Your task to perform on an android device: open app "Adobe Acrobat Reader" (install if not already installed) Image 0: 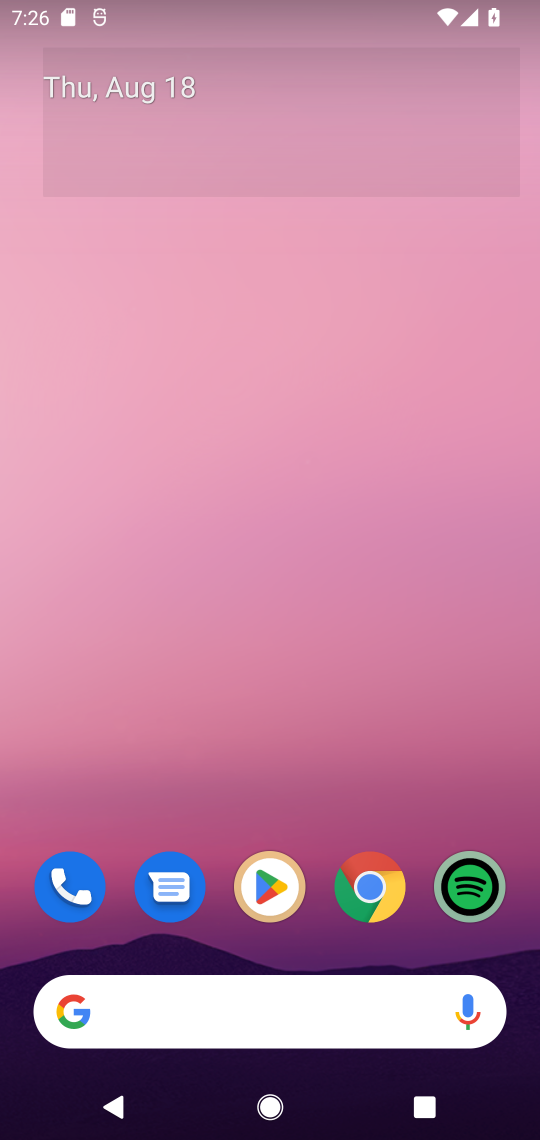
Step 0: click (274, 894)
Your task to perform on an android device: open app "Adobe Acrobat Reader" (install if not already installed) Image 1: 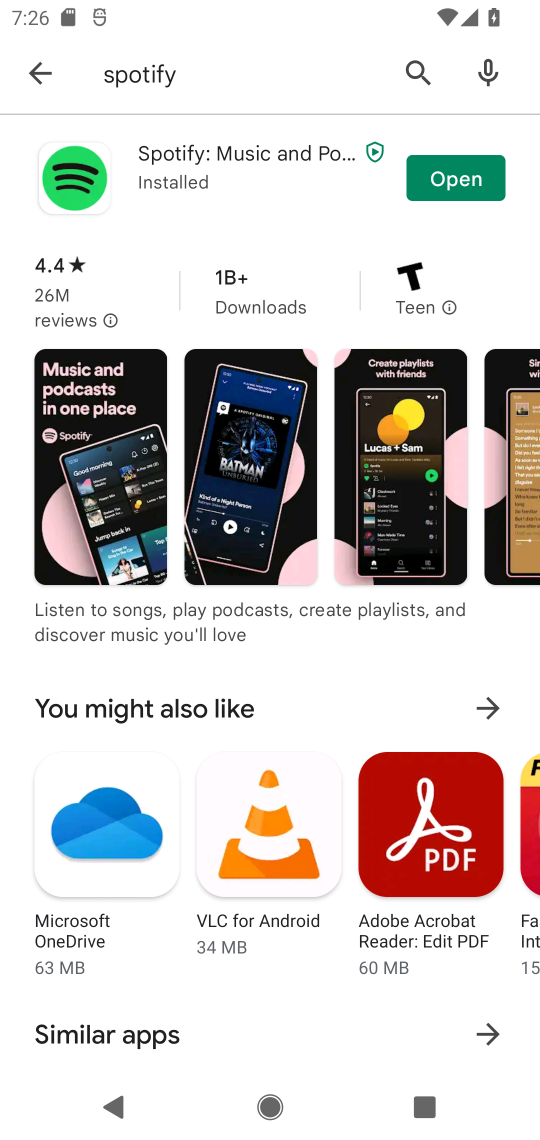
Step 1: click (417, 55)
Your task to perform on an android device: open app "Adobe Acrobat Reader" (install if not already installed) Image 2: 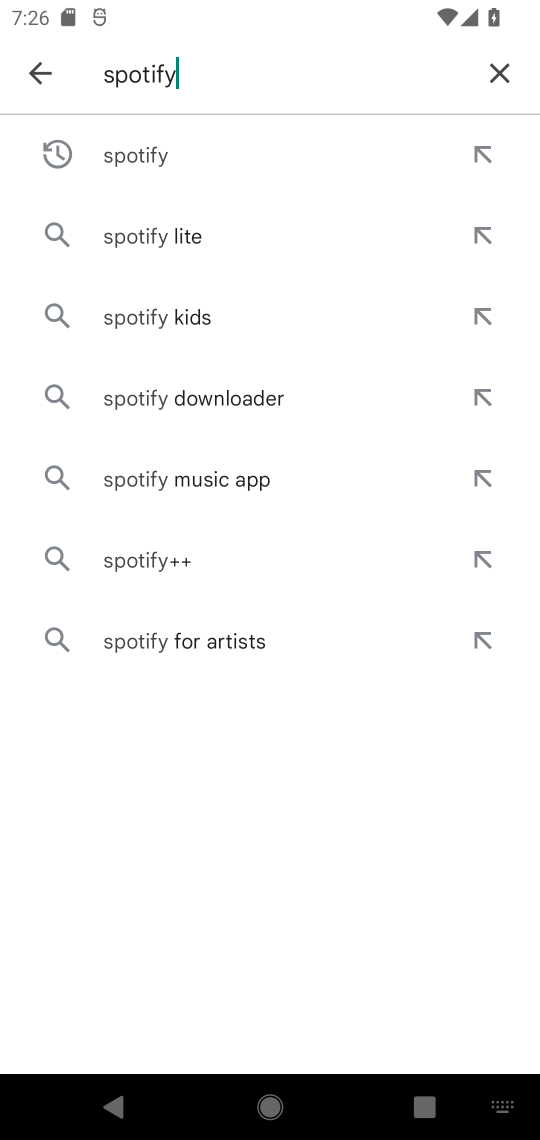
Step 2: click (499, 62)
Your task to perform on an android device: open app "Adobe Acrobat Reader" (install if not already installed) Image 3: 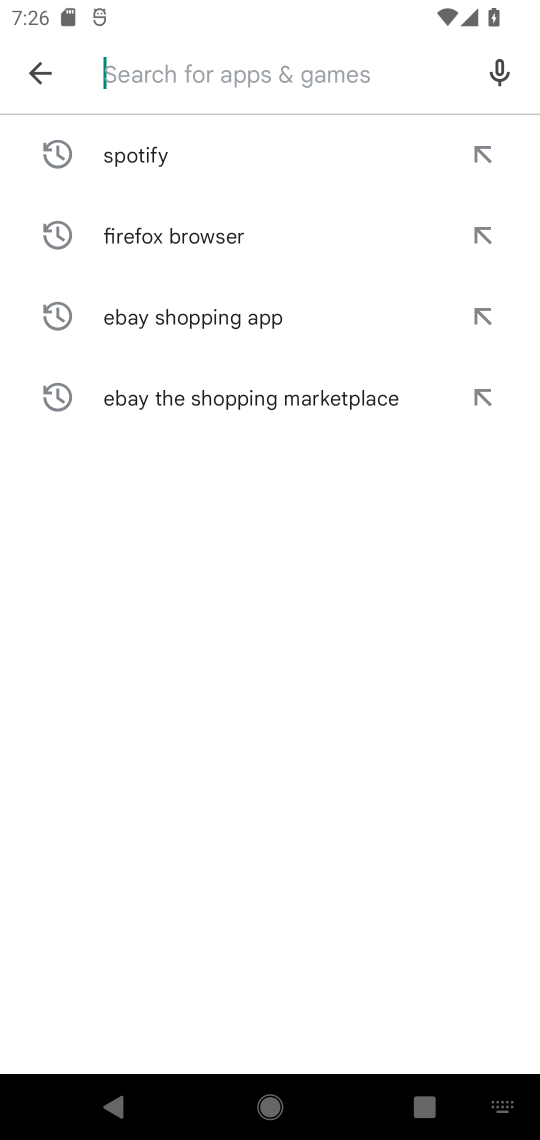
Step 3: type "Adobe Acrobat Reader"
Your task to perform on an android device: open app "Adobe Acrobat Reader" (install if not already installed) Image 4: 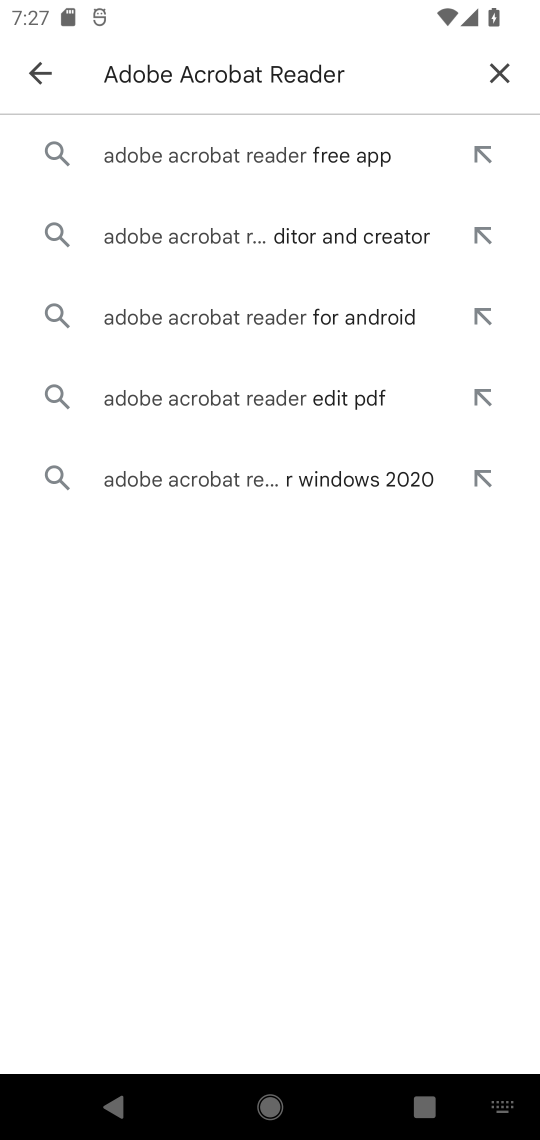
Step 4: click (307, 159)
Your task to perform on an android device: open app "Adobe Acrobat Reader" (install if not already installed) Image 5: 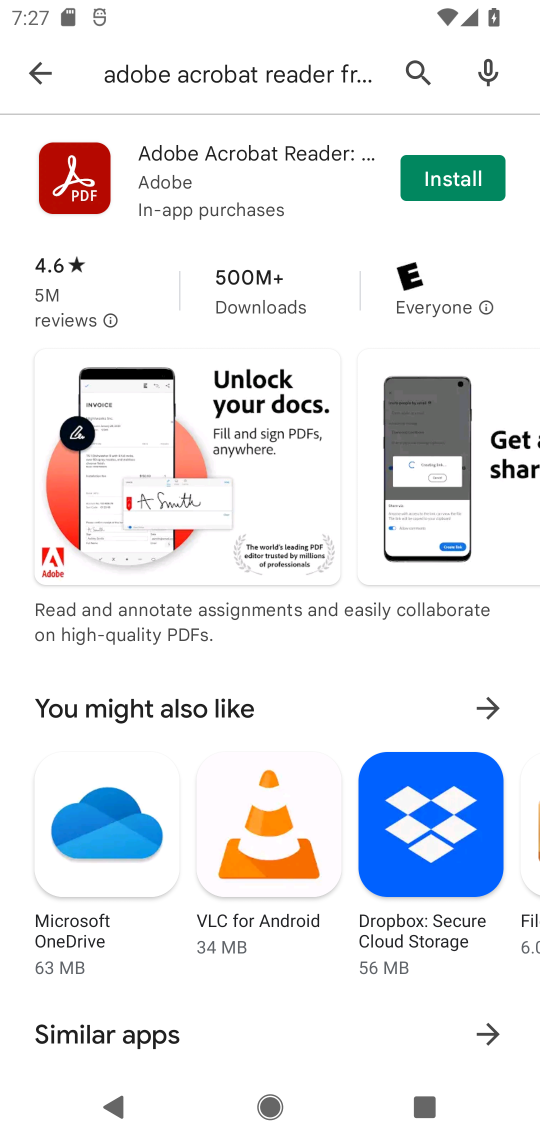
Step 5: click (447, 174)
Your task to perform on an android device: open app "Adobe Acrobat Reader" (install if not already installed) Image 6: 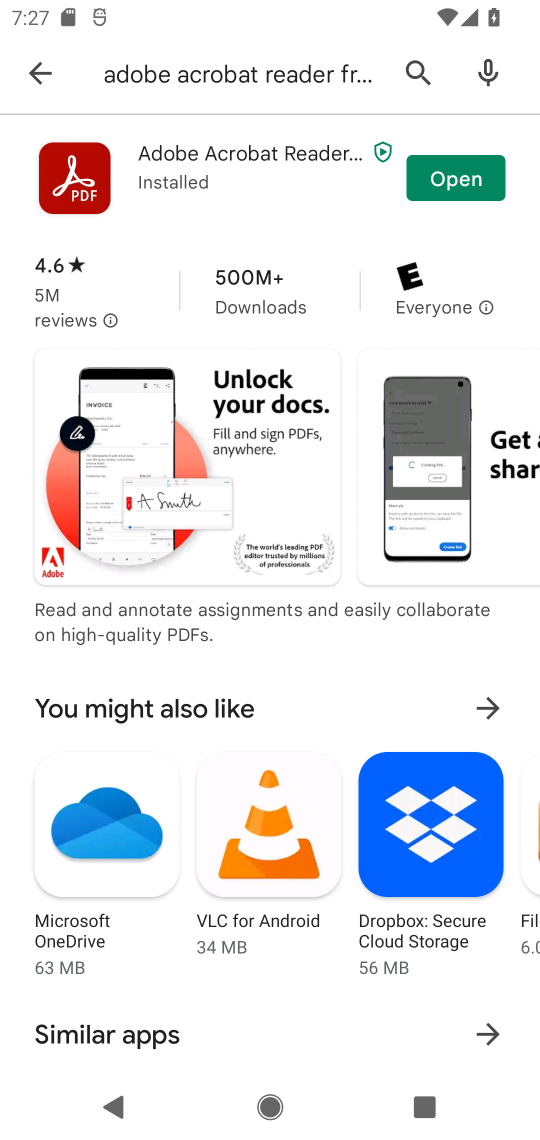
Step 6: click (460, 171)
Your task to perform on an android device: open app "Adobe Acrobat Reader" (install if not already installed) Image 7: 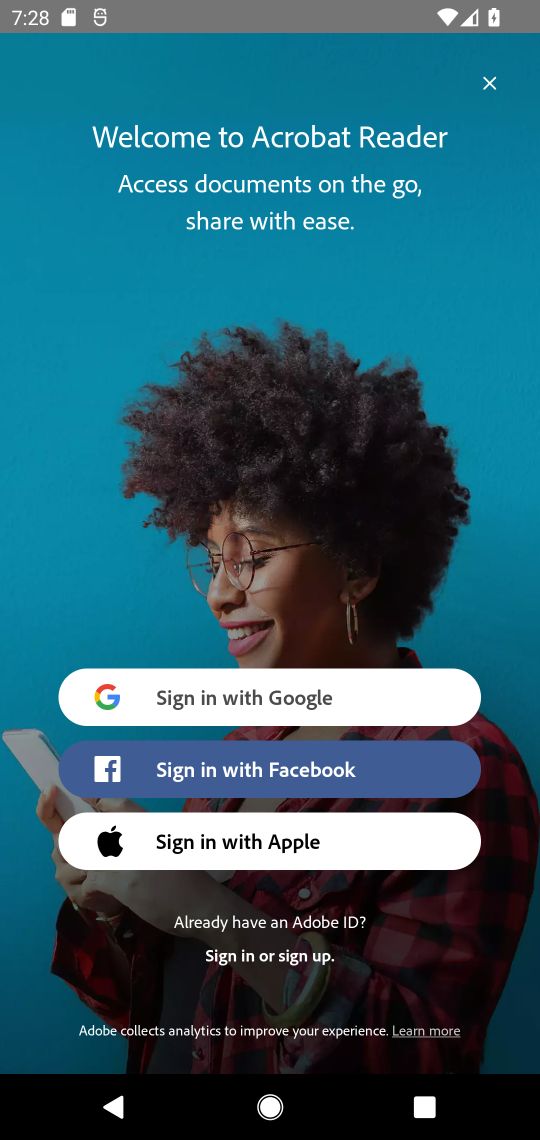
Step 7: task complete